Your task to perform on an android device: Go to display settings Image 0: 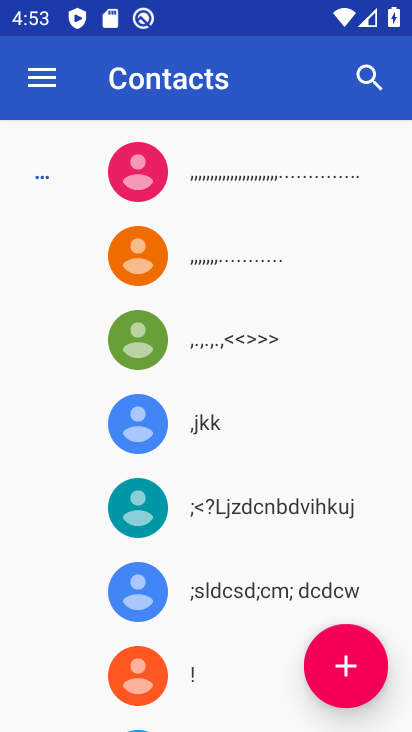
Step 0: click (49, 95)
Your task to perform on an android device: Go to display settings Image 1: 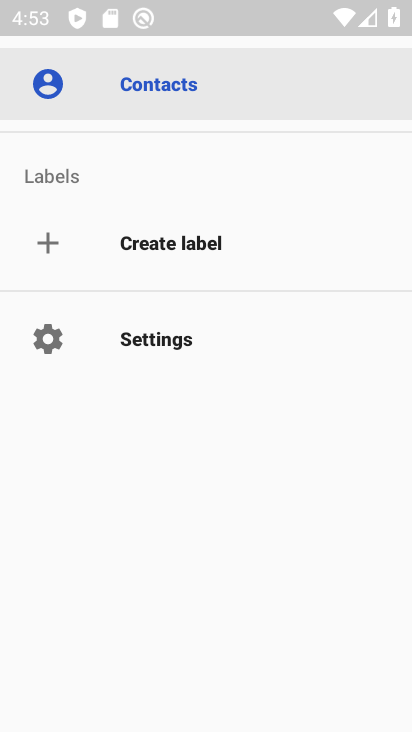
Step 1: press back button
Your task to perform on an android device: Go to display settings Image 2: 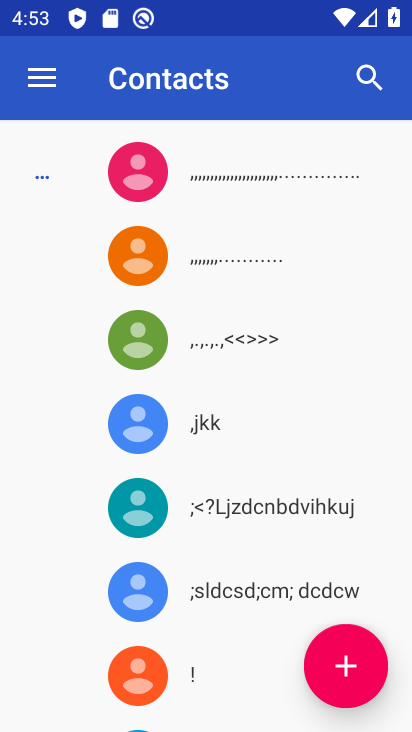
Step 2: press back button
Your task to perform on an android device: Go to display settings Image 3: 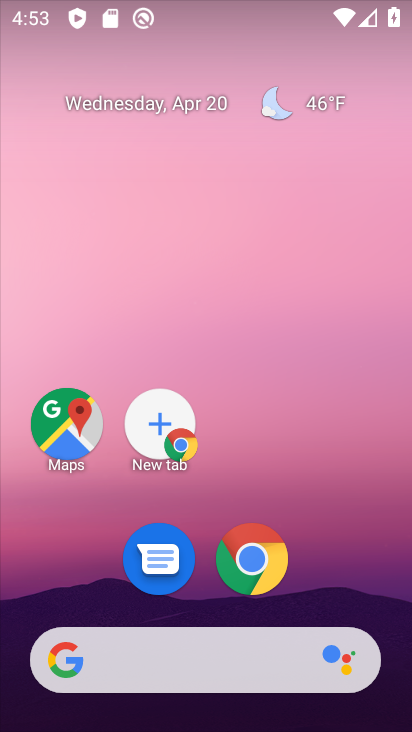
Step 3: drag from (331, 562) to (341, 91)
Your task to perform on an android device: Go to display settings Image 4: 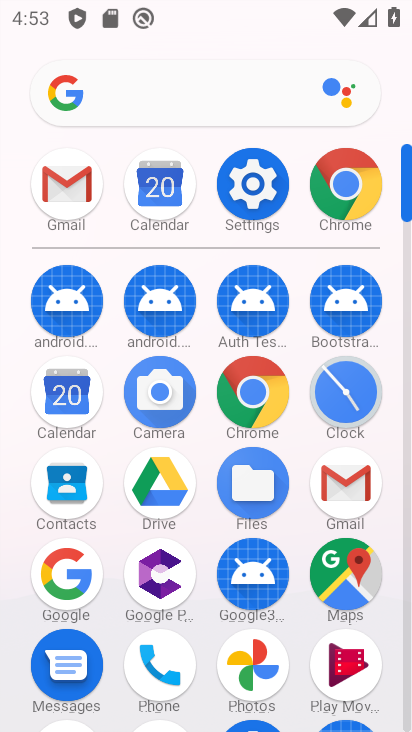
Step 4: click (266, 175)
Your task to perform on an android device: Go to display settings Image 5: 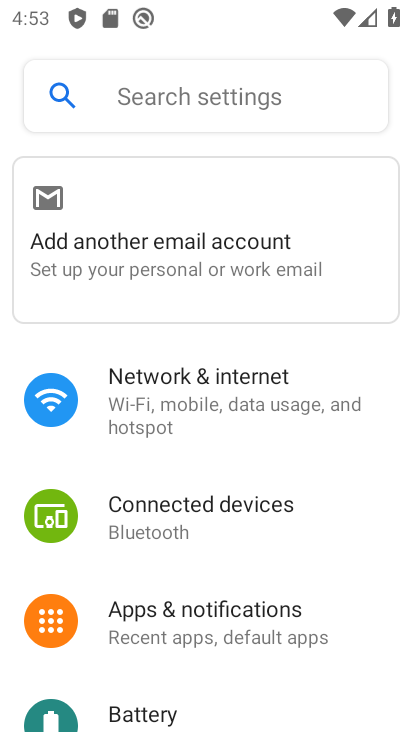
Step 5: drag from (162, 585) to (205, 346)
Your task to perform on an android device: Go to display settings Image 6: 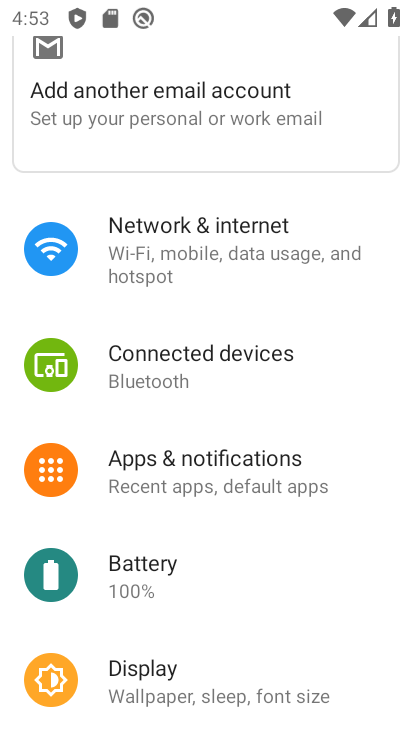
Step 6: click (173, 682)
Your task to perform on an android device: Go to display settings Image 7: 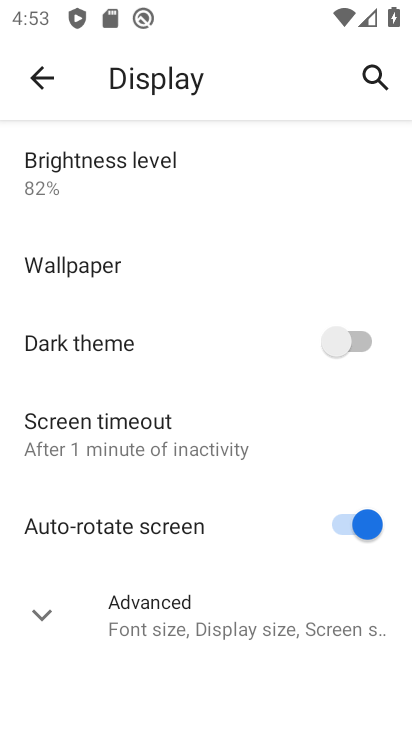
Step 7: task complete